Your task to perform on an android device: delete browsing data in the chrome app Image 0: 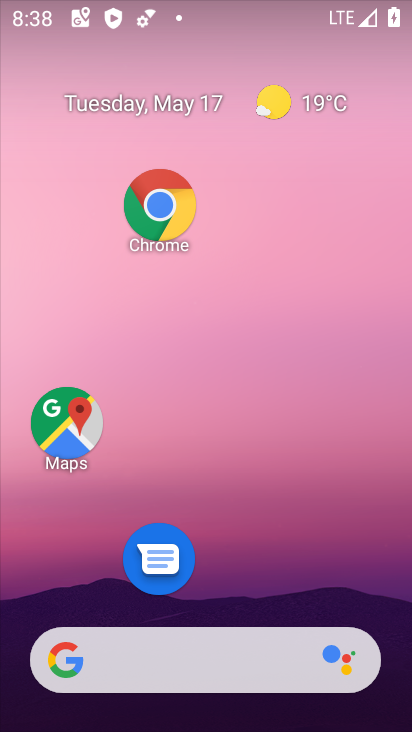
Step 0: drag from (266, 297) to (246, 35)
Your task to perform on an android device: delete browsing data in the chrome app Image 1: 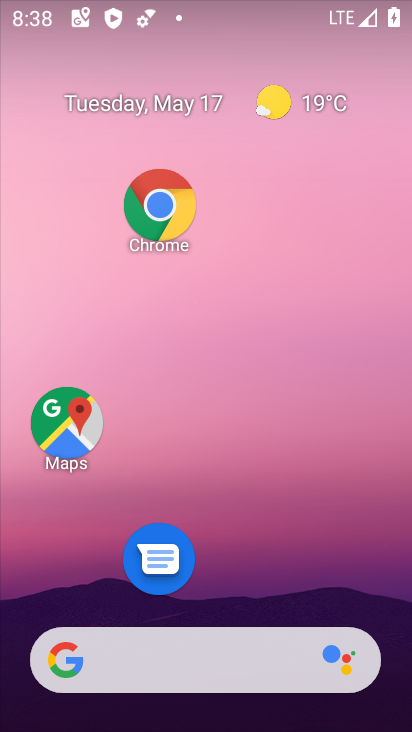
Step 1: drag from (226, 562) to (238, 225)
Your task to perform on an android device: delete browsing data in the chrome app Image 2: 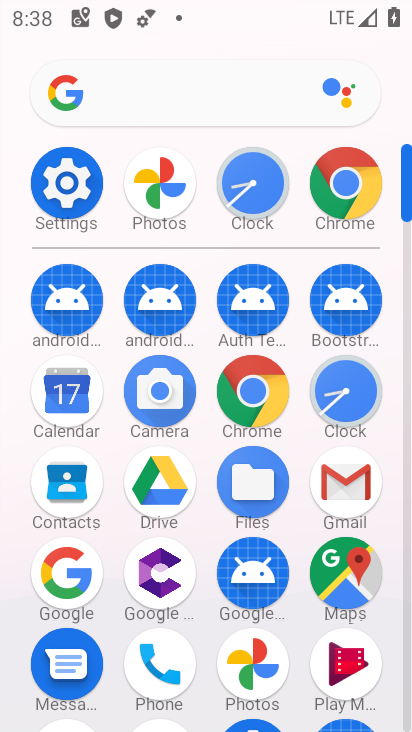
Step 2: click (234, 395)
Your task to perform on an android device: delete browsing data in the chrome app Image 3: 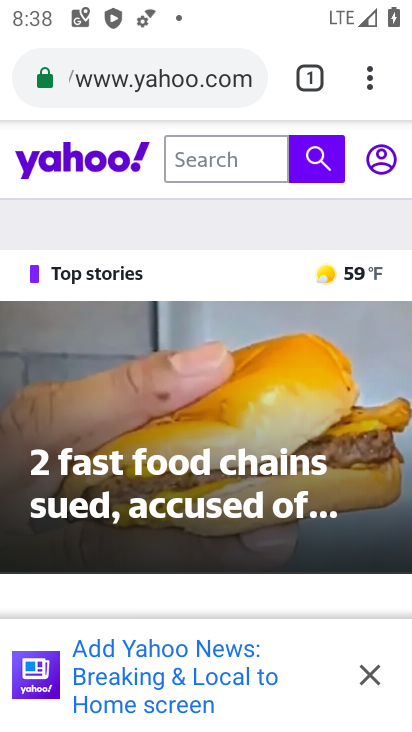
Step 3: click (365, 74)
Your task to perform on an android device: delete browsing data in the chrome app Image 4: 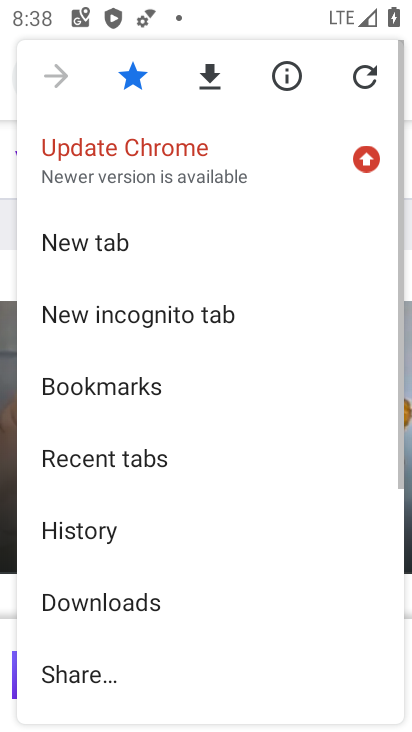
Step 4: drag from (207, 428) to (225, 257)
Your task to perform on an android device: delete browsing data in the chrome app Image 5: 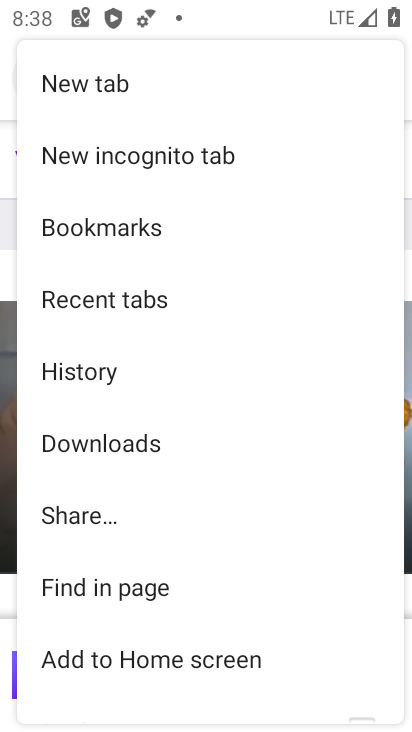
Step 5: drag from (193, 632) to (207, 255)
Your task to perform on an android device: delete browsing data in the chrome app Image 6: 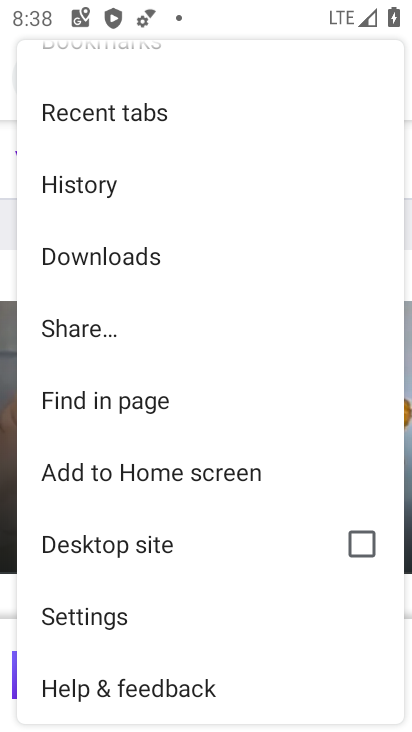
Step 6: click (119, 188)
Your task to perform on an android device: delete browsing data in the chrome app Image 7: 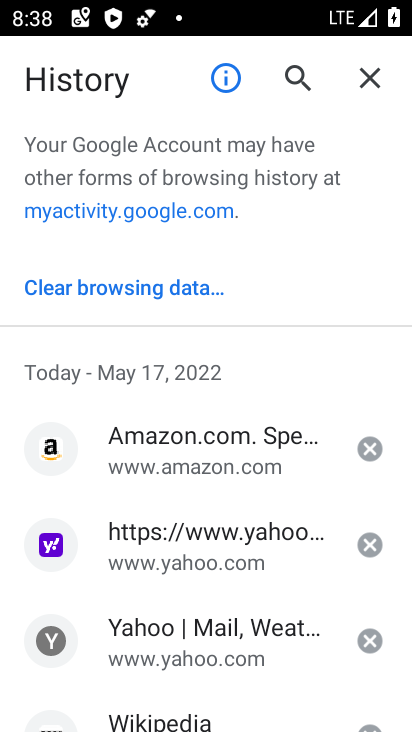
Step 7: click (123, 289)
Your task to perform on an android device: delete browsing data in the chrome app Image 8: 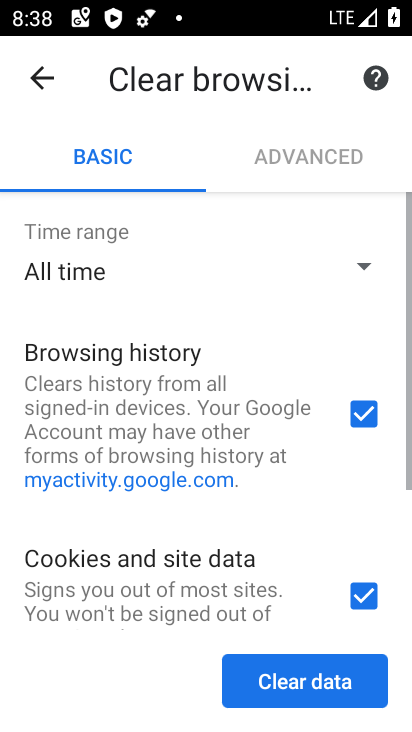
Step 8: drag from (269, 559) to (245, 231)
Your task to perform on an android device: delete browsing data in the chrome app Image 9: 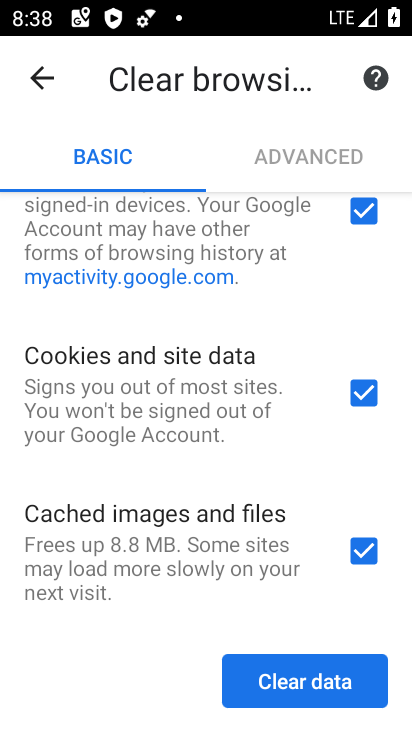
Step 9: click (293, 674)
Your task to perform on an android device: delete browsing data in the chrome app Image 10: 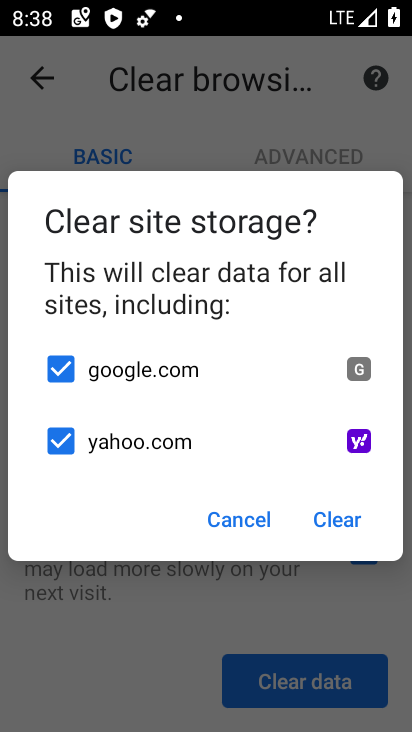
Step 10: click (336, 505)
Your task to perform on an android device: delete browsing data in the chrome app Image 11: 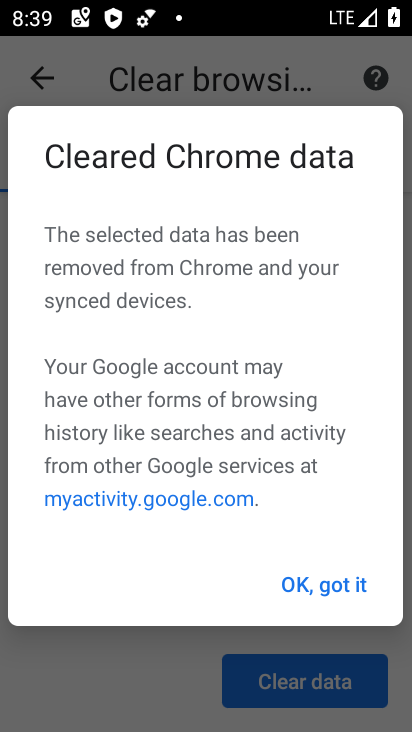
Step 11: click (284, 602)
Your task to perform on an android device: delete browsing data in the chrome app Image 12: 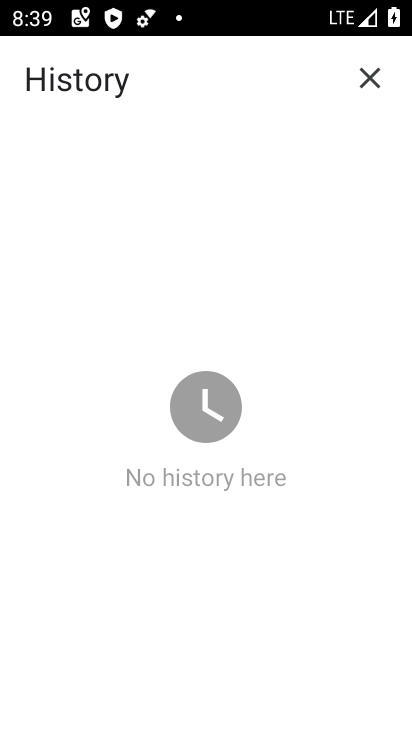
Step 12: task complete